Your task to perform on an android device: turn on sleep mode Image 0: 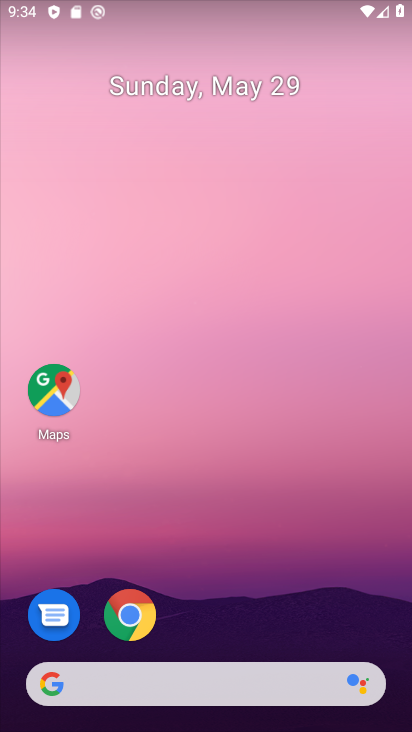
Step 0: drag from (251, 651) to (185, 119)
Your task to perform on an android device: turn on sleep mode Image 1: 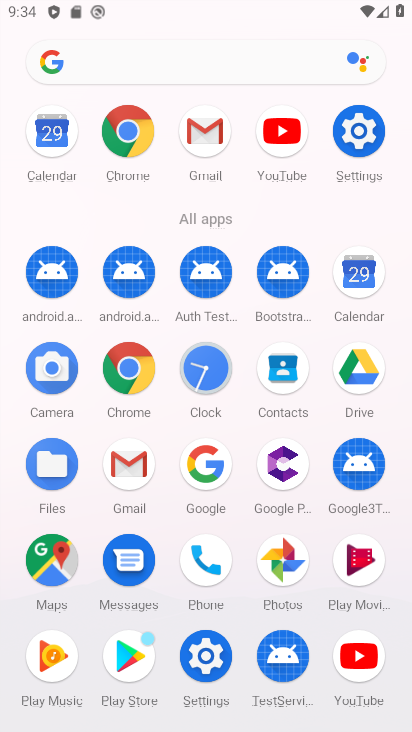
Step 1: click (217, 660)
Your task to perform on an android device: turn on sleep mode Image 2: 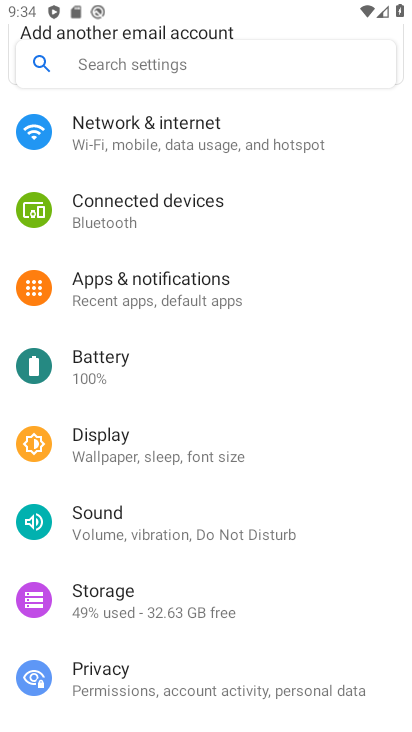
Step 2: click (140, 470)
Your task to perform on an android device: turn on sleep mode Image 3: 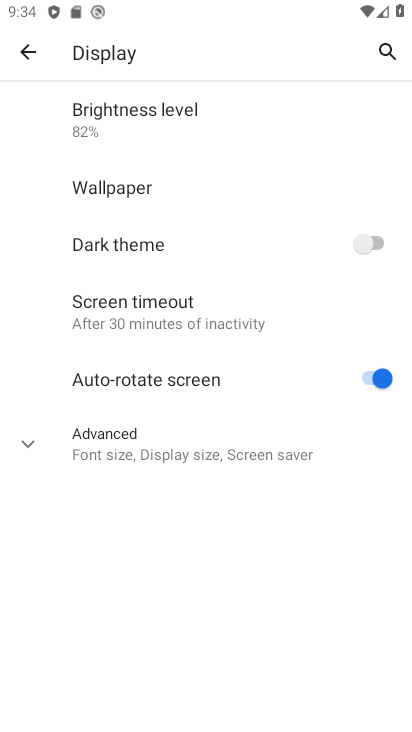
Step 3: task complete